Your task to perform on an android device: Play the latest video from the Washington Post Image 0: 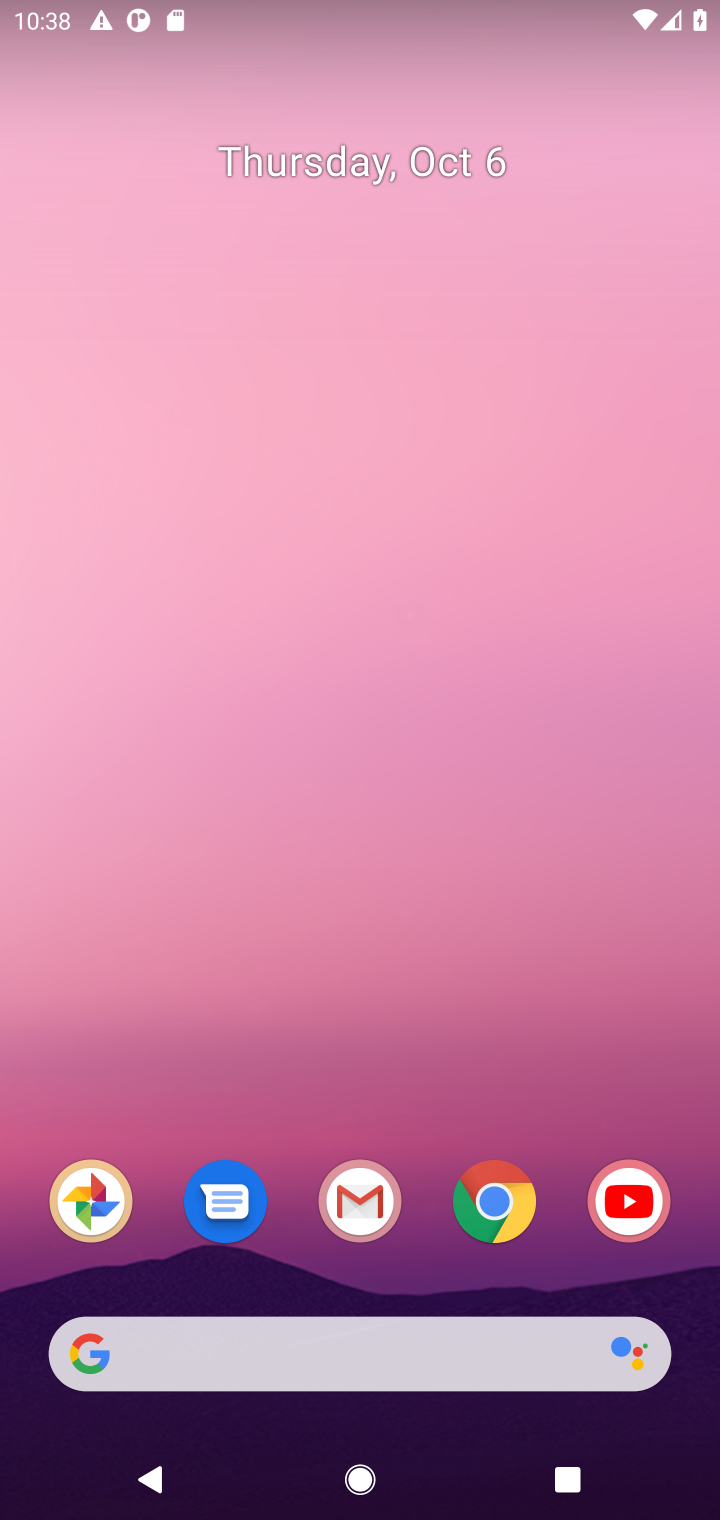
Step 0: drag from (329, 1106) to (586, 164)
Your task to perform on an android device: Play the latest video from the Washington Post Image 1: 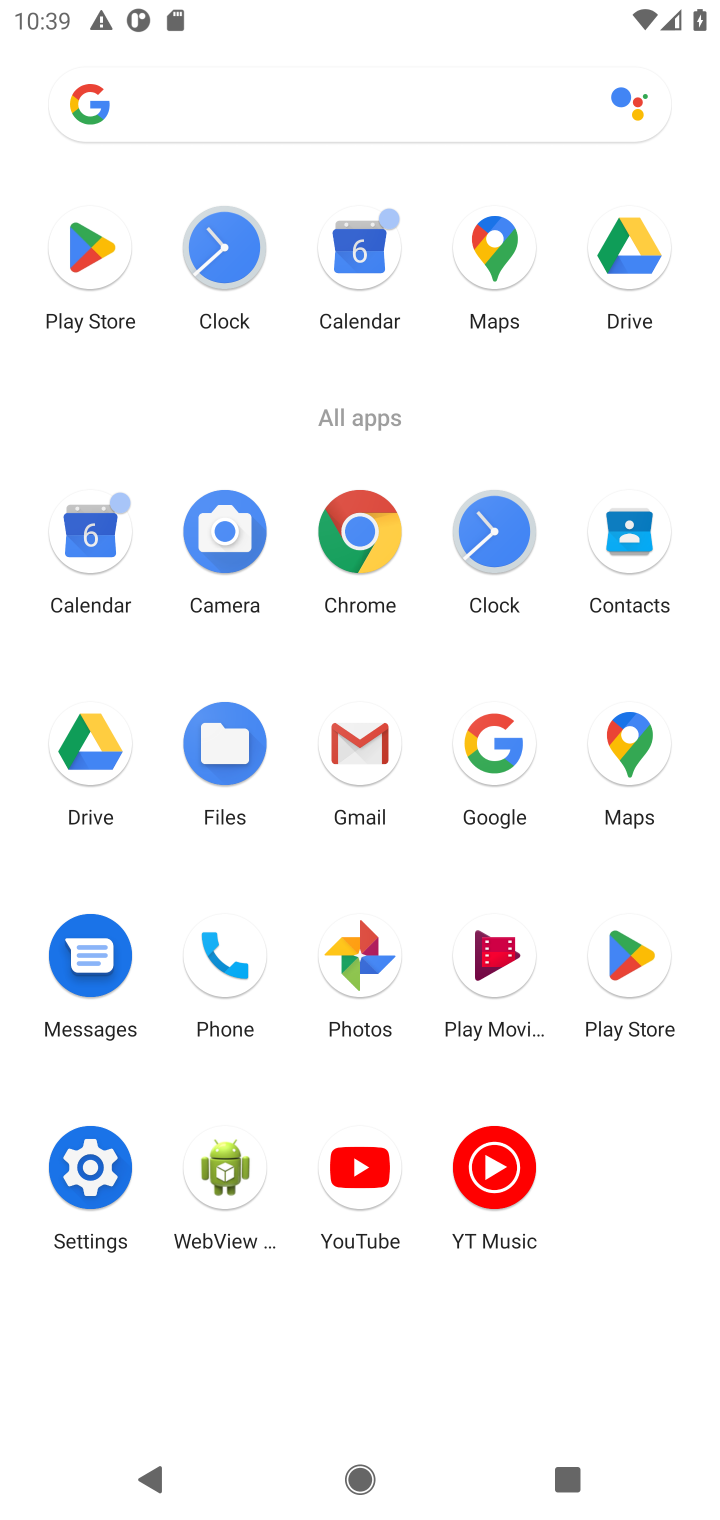
Step 1: click (369, 545)
Your task to perform on an android device: Play the latest video from the Washington Post Image 2: 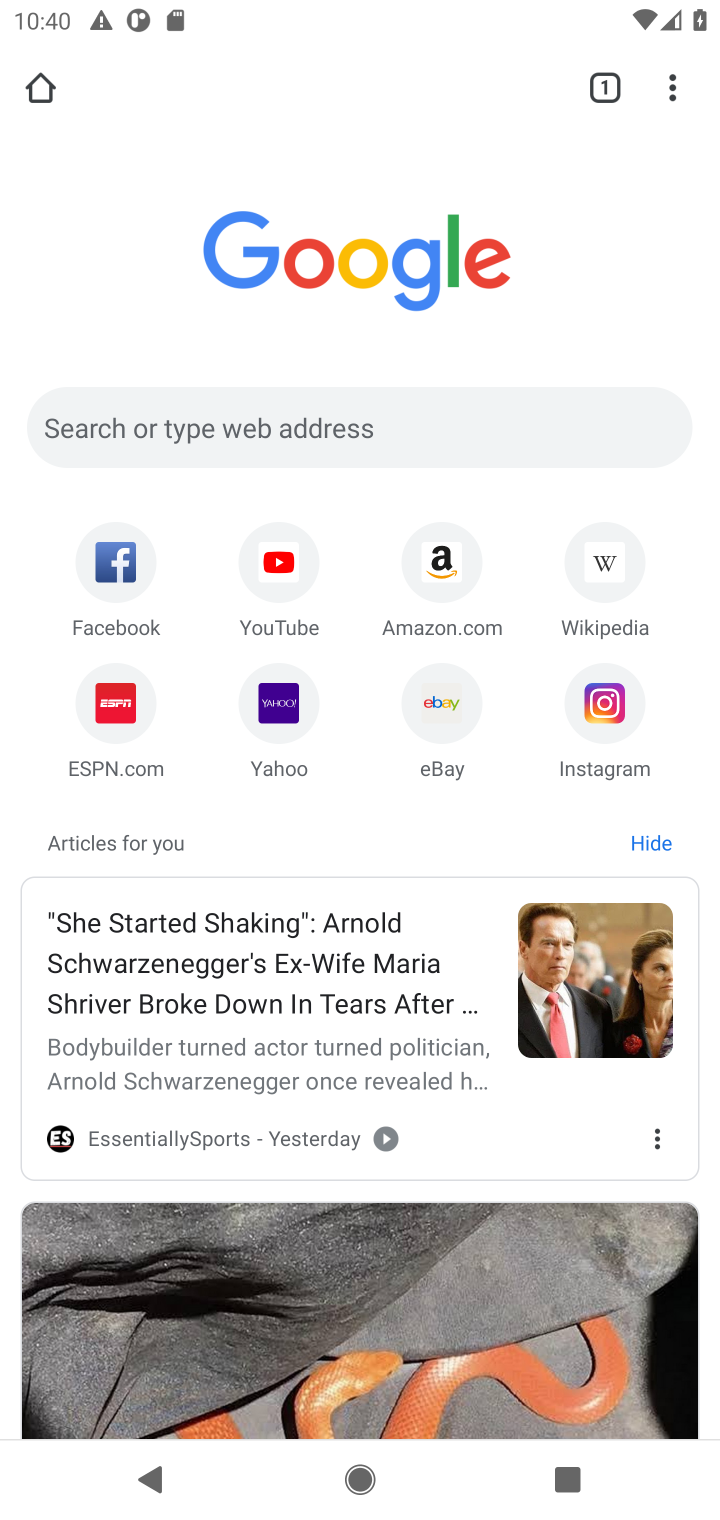
Step 2: click (452, 429)
Your task to perform on an android device: Play the latest video from the Washington Post Image 3: 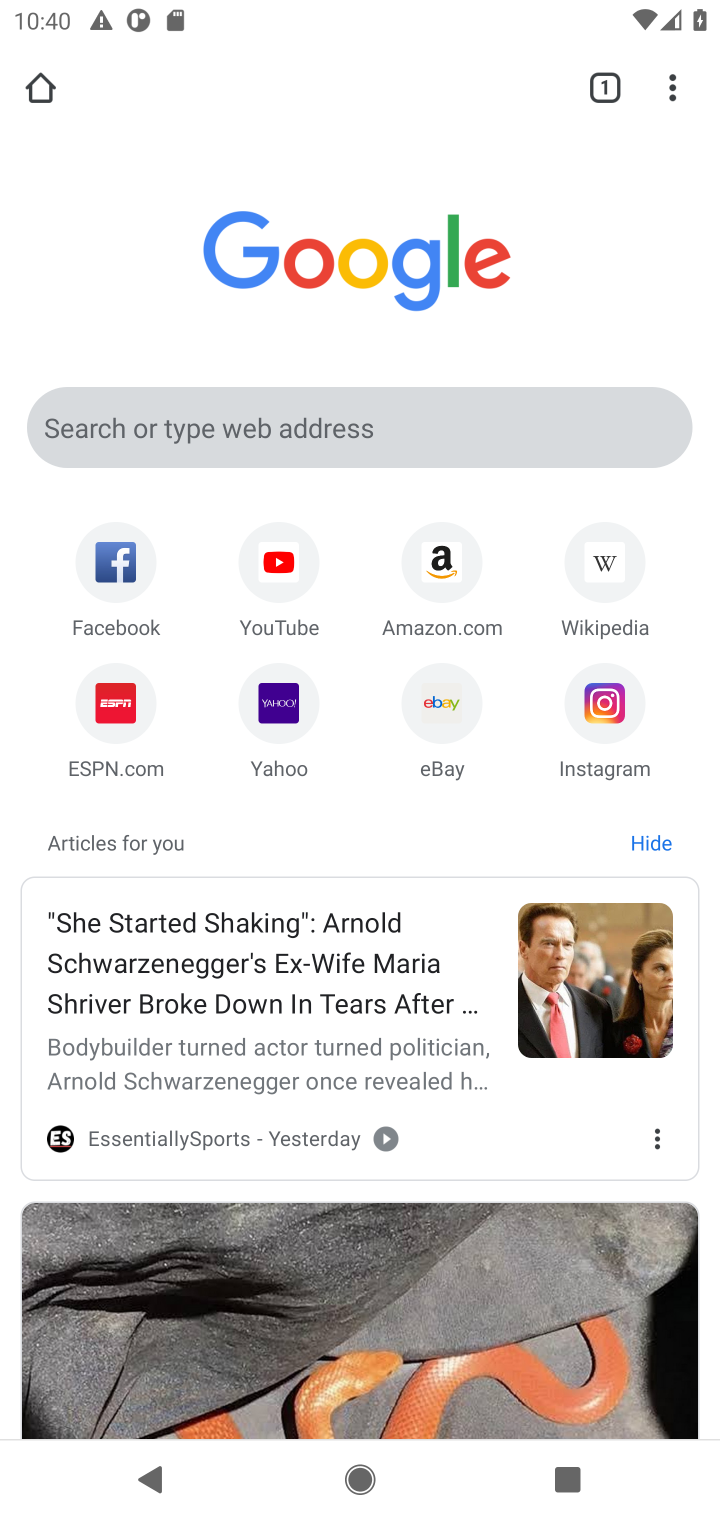
Step 3: click (452, 431)
Your task to perform on an android device: Play the latest video from the Washington Post Image 4: 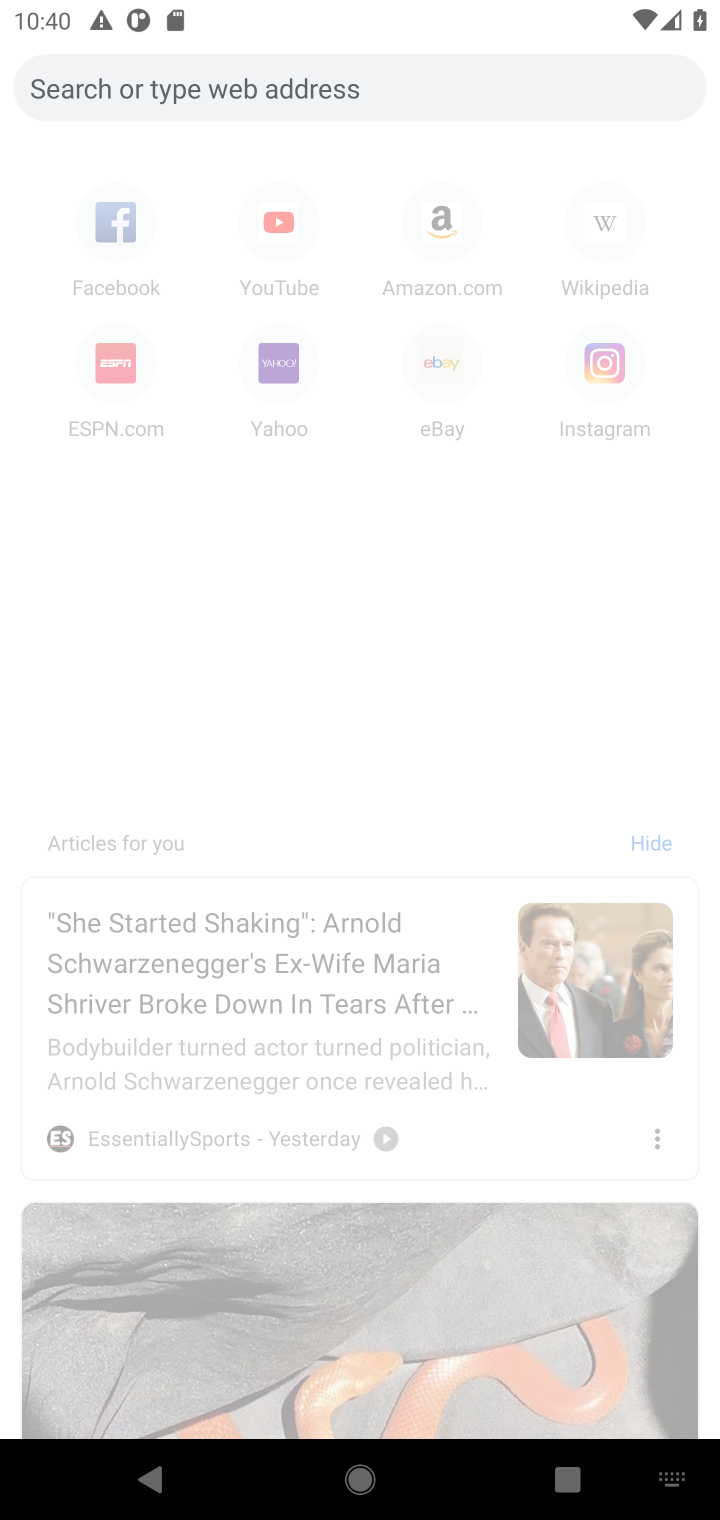
Step 4: type "Play the latest video from the Washington Post"
Your task to perform on an android device: Play the latest video from the Washington Post Image 5: 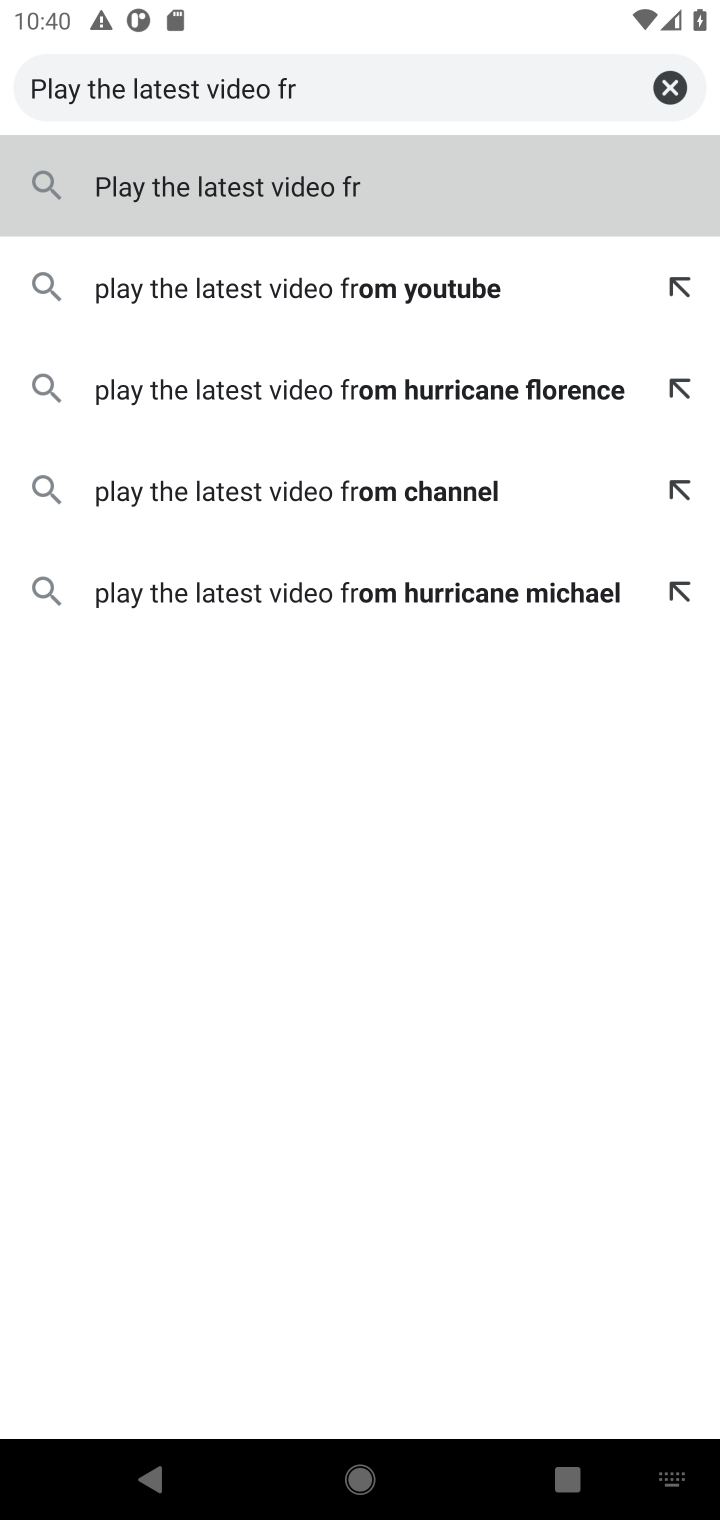
Step 5: press enter
Your task to perform on an android device: Play the latest video from the Washington Post Image 6: 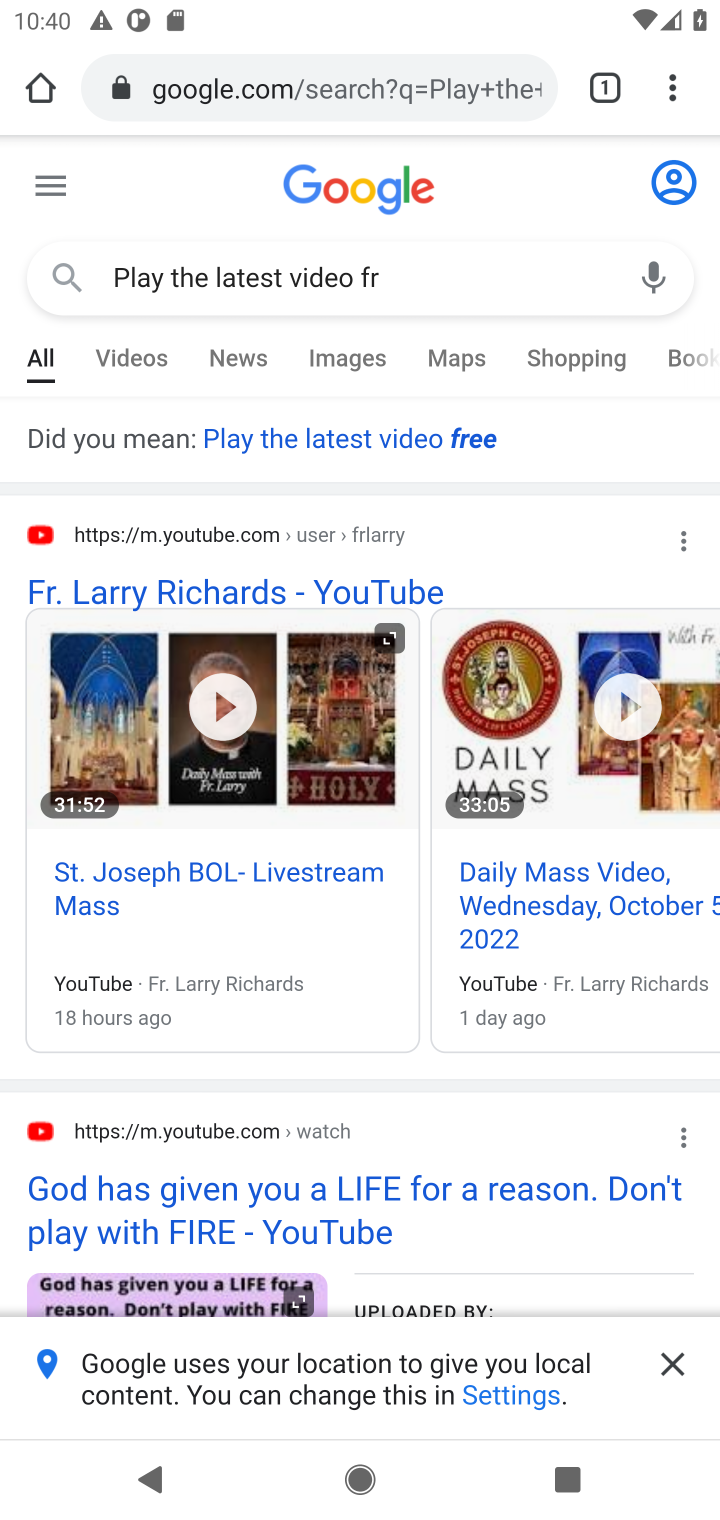
Step 6: click (153, 350)
Your task to perform on an android device: Play the latest video from the Washington Post Image 7: 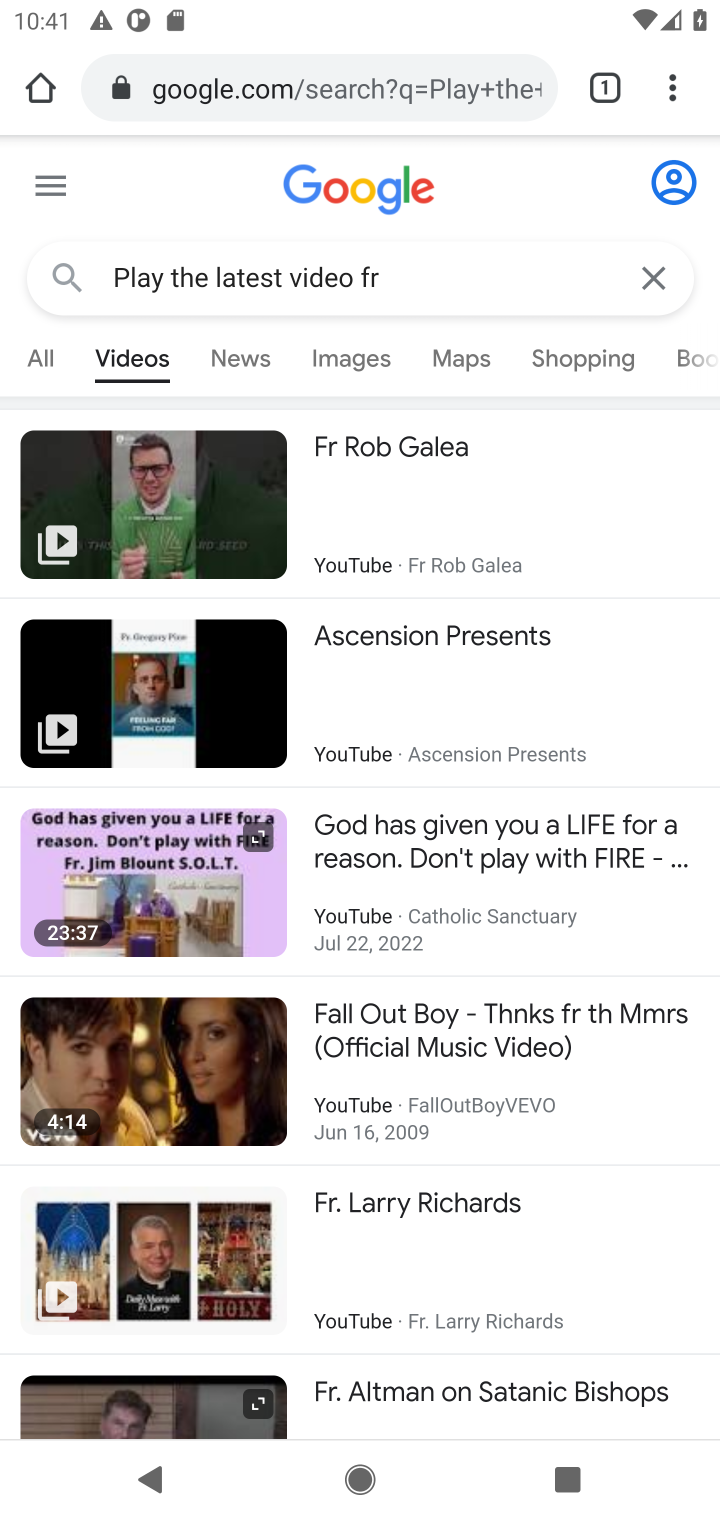
Step 7: click (158, 495)
Your task to perform on an android device: Play the latest video from the Washington Post Image 8: 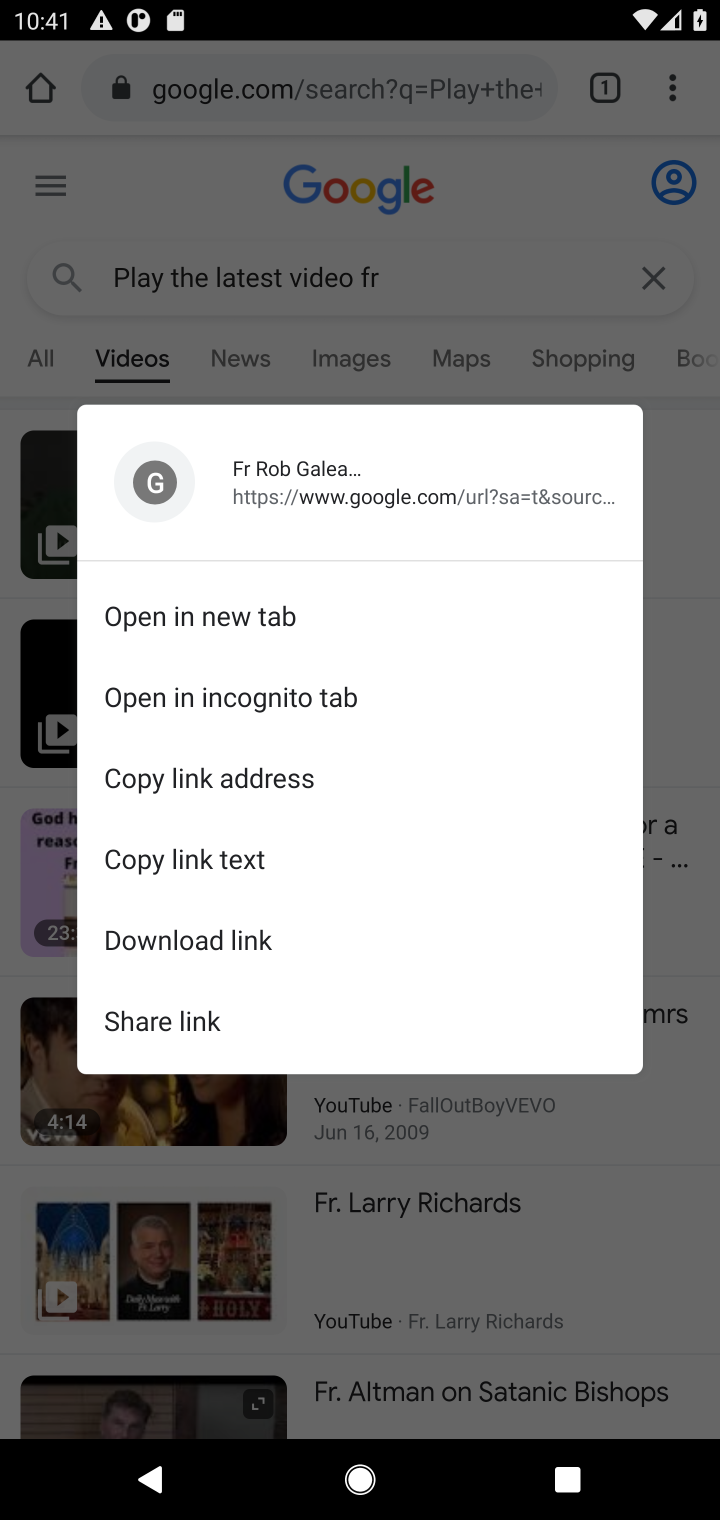
Step 8: task complete